Your task to perform on an android device: toggle priority inbox in the gmail app Image 0: 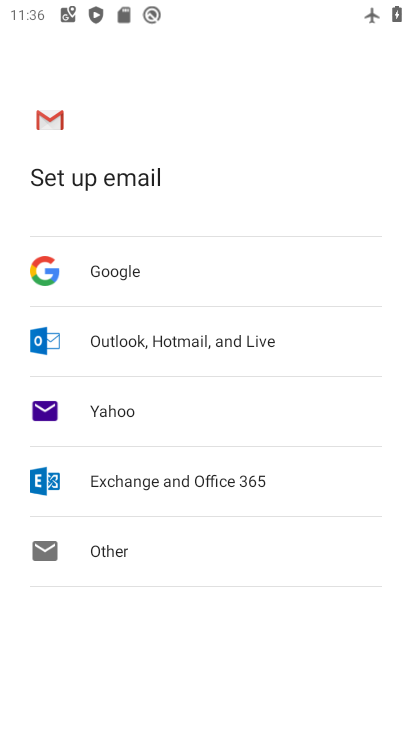
Step 0: press home button
Your task to perform on an android device: toggle priority inbox in the gmail app Image 1: 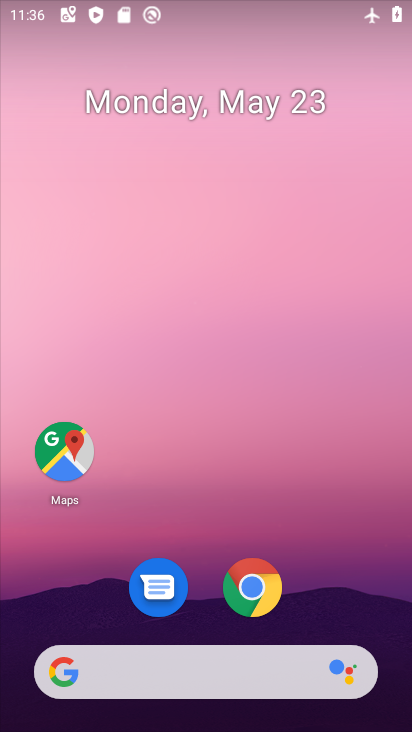
Step 1: drag from (362, 631) to (287, 47)
Your task to perform on an android device: toggle priority inbox in the gmail app Image 2: 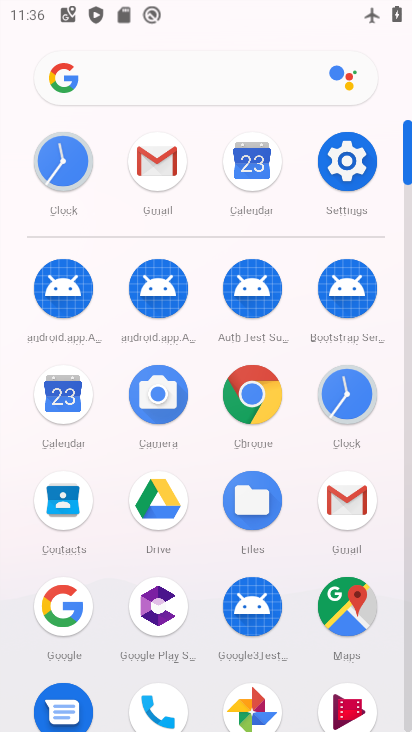
Step 2: click (149, 170)
Your task to perform on an android device: toggle priority inbox in the gmail app Image 3: 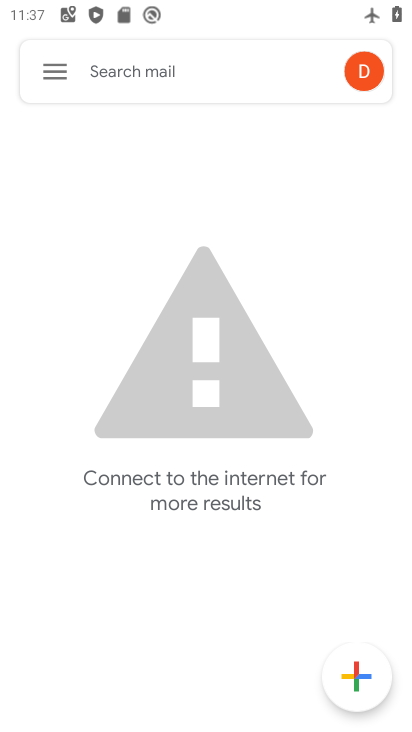
Step 3: click (54, 91)
Your task to perform on an android device: toggle priority inbox in the gmail app Image 4: 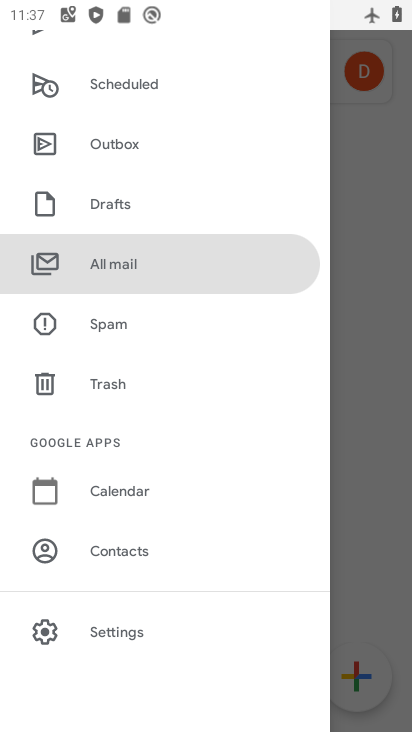
Step 4: click (125, 642)
Your task to perform on an android device: toggle priority inbox in the gmail app Image 5: 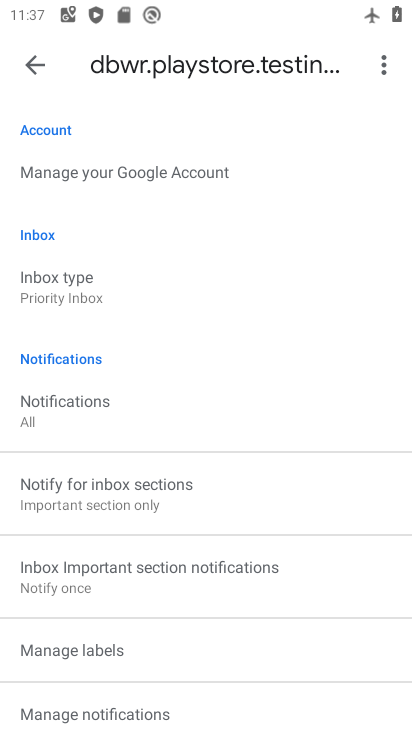
Step 5: click (153, 287)
Your task to perform on an android device: toggle priority inbox in the gmail app Image 6: 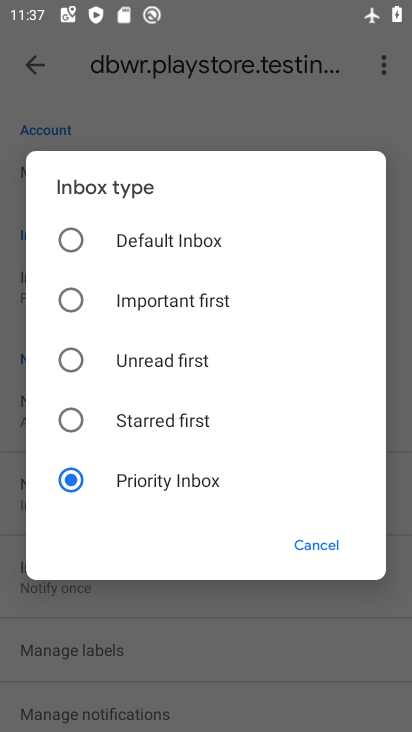
Step 6: click (177, 419)
Your task to perform on an android device: toggle priority inbox in the gmail app Image 7: 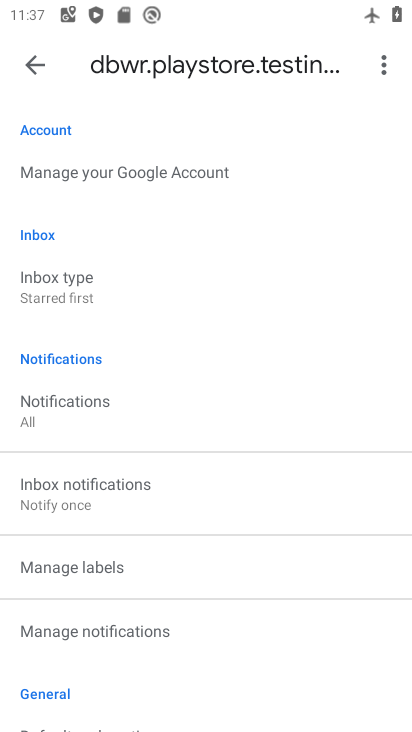
Step 7: task complete